Your task to perform on an android device: all mails in gmail Image 0: 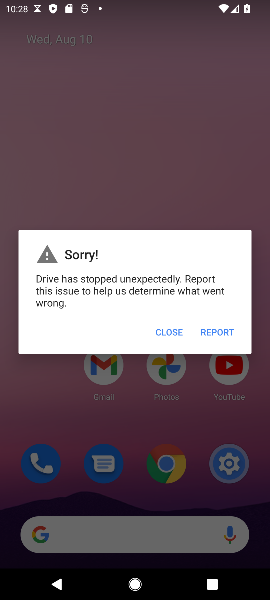
Step 0: click (95, 374)
Your task to perform on an android device: all mails in gmail Image 1: 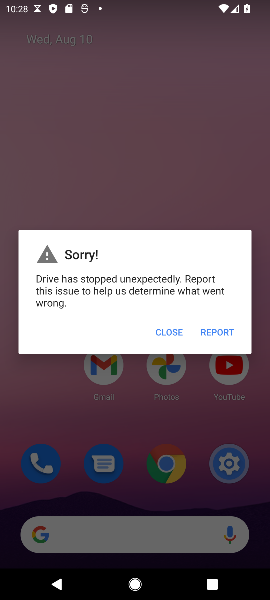
Step 1: click (167, 333)
Your task to perform on an android device: all mails in gmail Image 2: 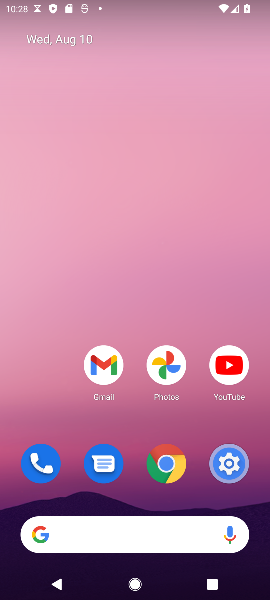
Step 2: click (107, 361)
Your task to perform on an android device: all mails in gmail Image 3: 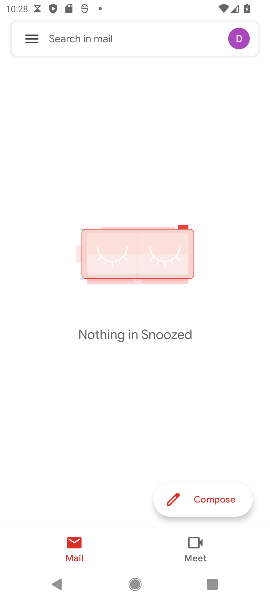
Step 3: click (29, 43)
Your task to perform on an android device: all mails in gmail Image 4: 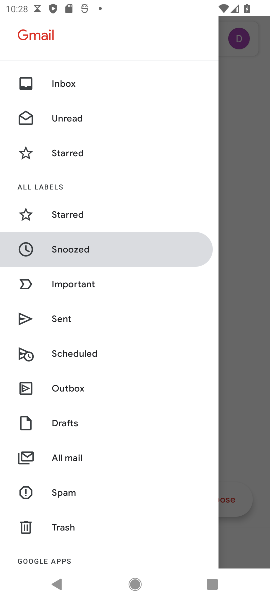
Step 4: click (75, 463)
Your task to perform on an android device: all mails in gmail Image 5: 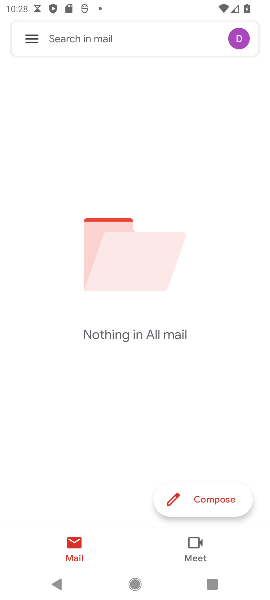
Step 5: task complete